Your task to perform on an android device: Go to privacy settings Image 0: 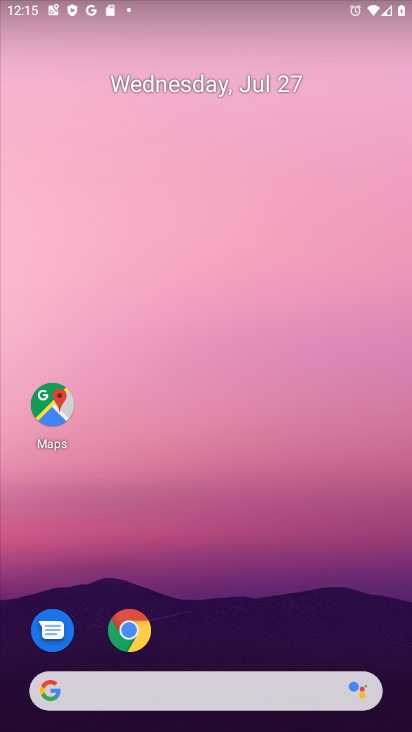
Step 0: drag from (160, 644) to (190, 106)
Your task to perform on an android device: Go to privacy settings Image 1: 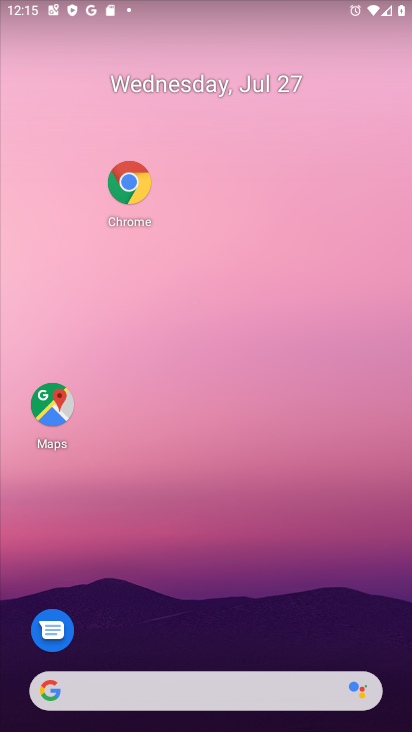
Step 1: drag from (285, 725) to (277, 87)
Your task to perform on an android device: Go to privacy settings Image 2: 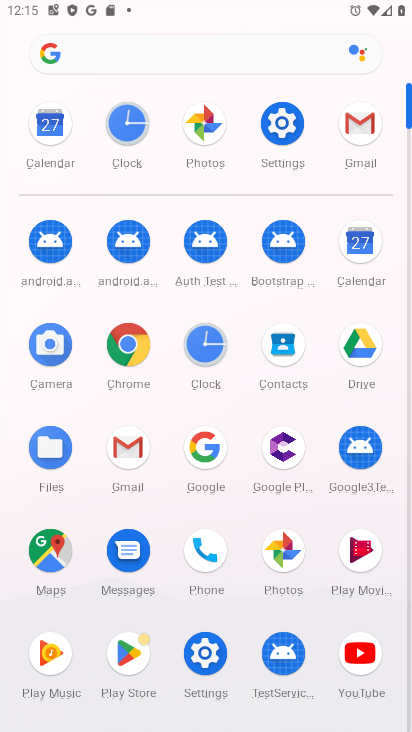
Step 2: click (294, 113)
Your task to perform on an android device: Go to privacy settings Image 3: 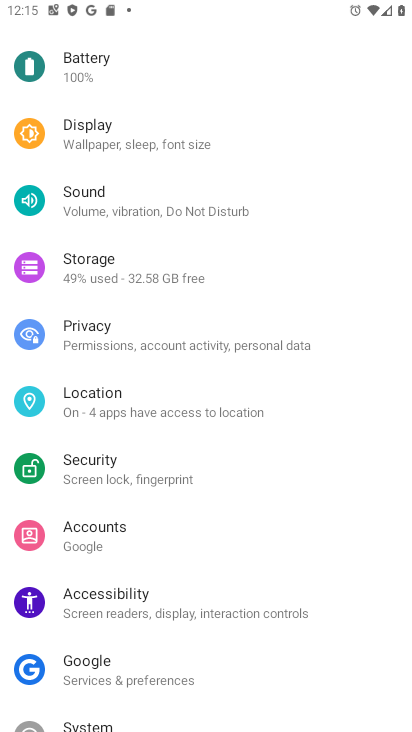
Step 3: click (200, 330)
Your task to perform on an android device: Go to privacy settings Image 4: 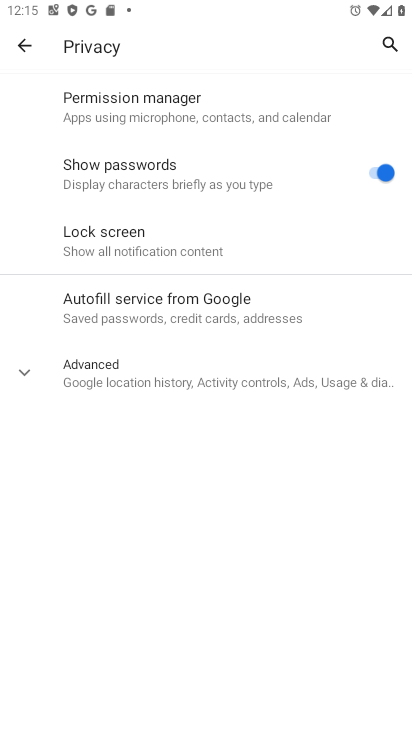
Step 4: task complete